Your task to perform on an android device: Open internet settings Image 0: 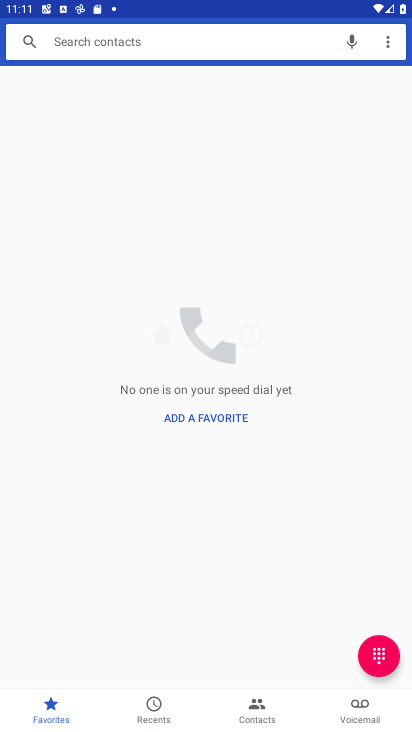
Step 0: press home button
Your task to perform on an android device: Open internet settings Image 1: 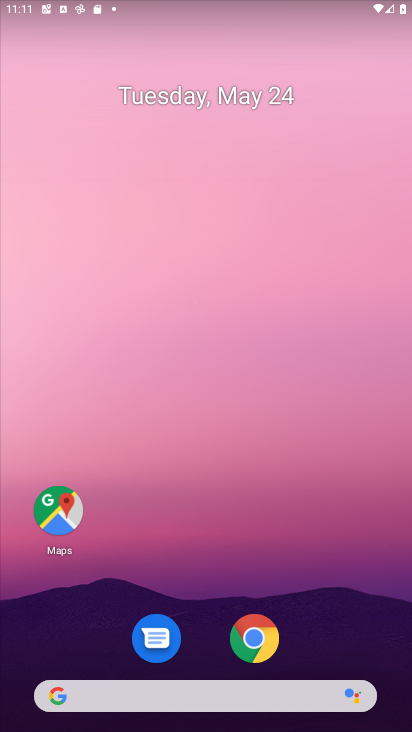
Step 1: drag from (258, 618) to (349, 27)
Your task to perform on an android device: Open internet settings Image 2: 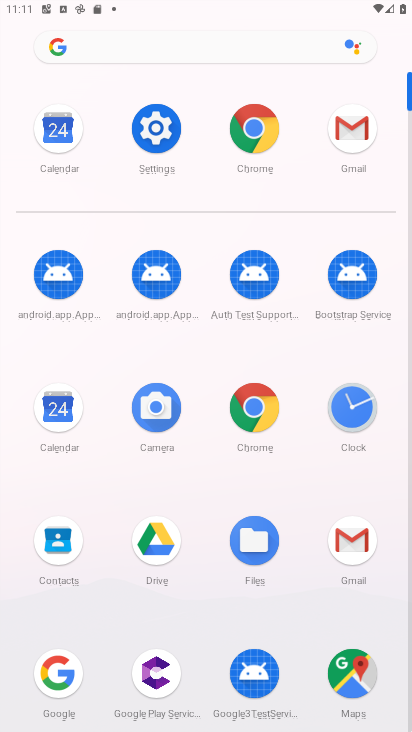
Step 2: click (163, 133)
Your task to perform on an android device: Open internet settings Image 3: 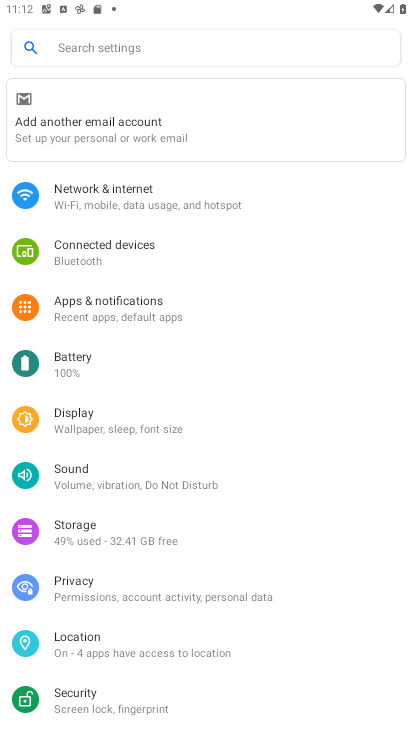
Step 3: click (204, 195)
Your task to perform on an android device: Open internet settings Image 4: 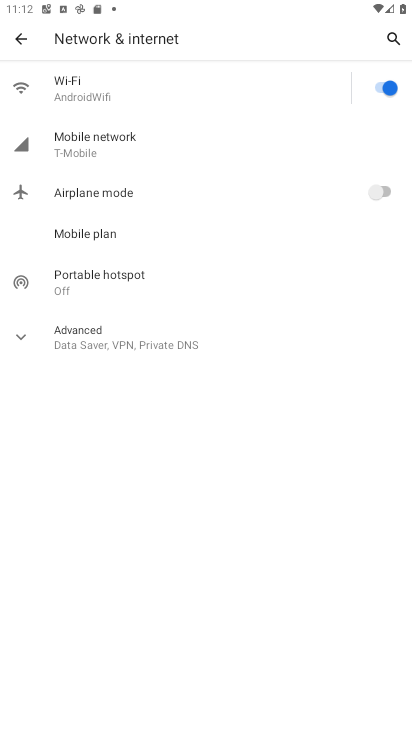
Step 4: task complete